Your task to perform on an android device: Open the web browser Image 0: 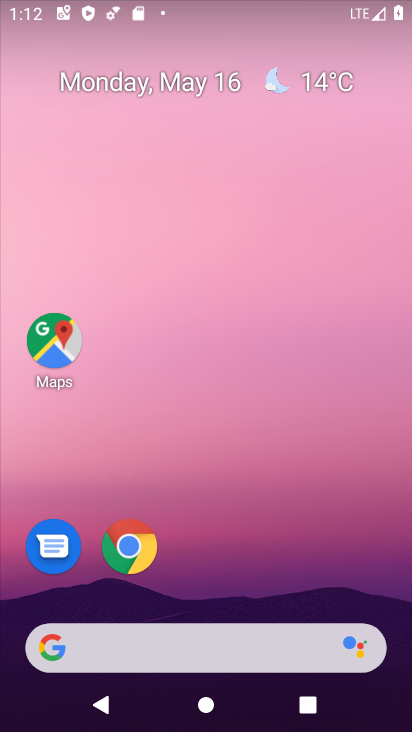
Step 0: drag from (226, 668) to (283, 118)
Your task to perform on an android device: Open the web browser Image 1: 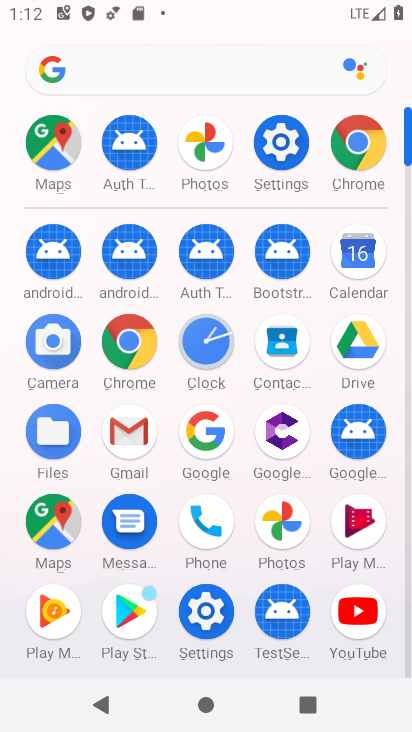
Step 1: click (347, 147)
Your task to perform on an android device: Open the web browser Image 2: 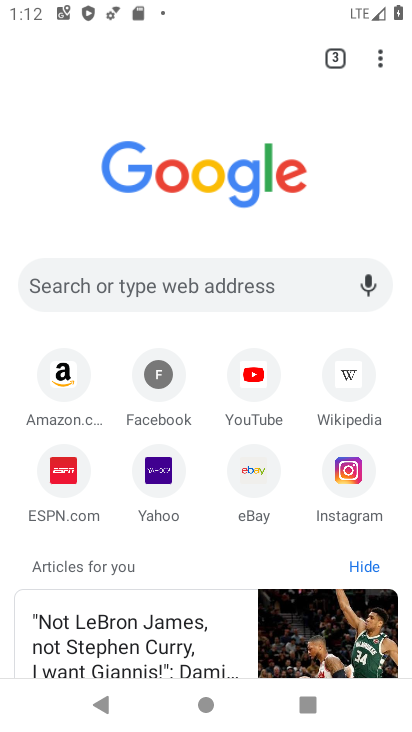
Step 2: click (141, 290)
Your task to perform on an android device: Open the web browser Image 3: 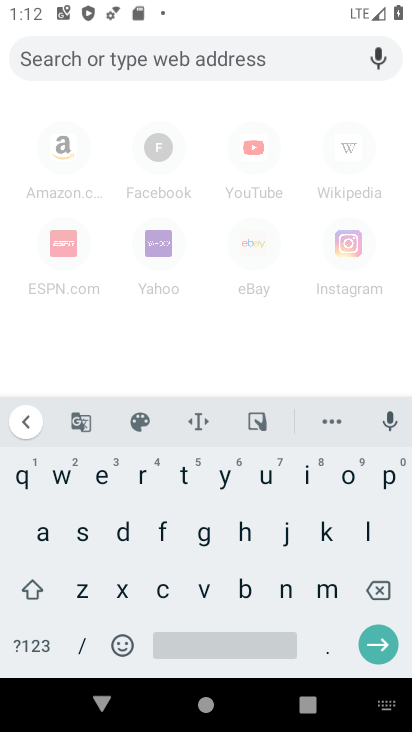
Step 3: task complete